Your task to perform on an android device: change the clock display to analog Image 0: 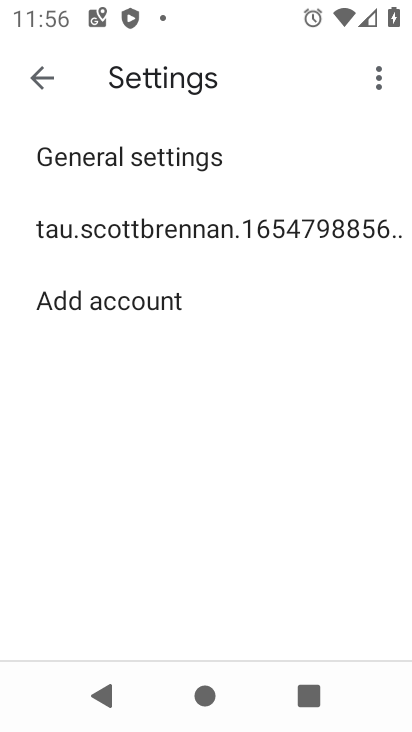
Step 0: press home button
Your task to perform on an android device: change the clock display to analog Image 1: 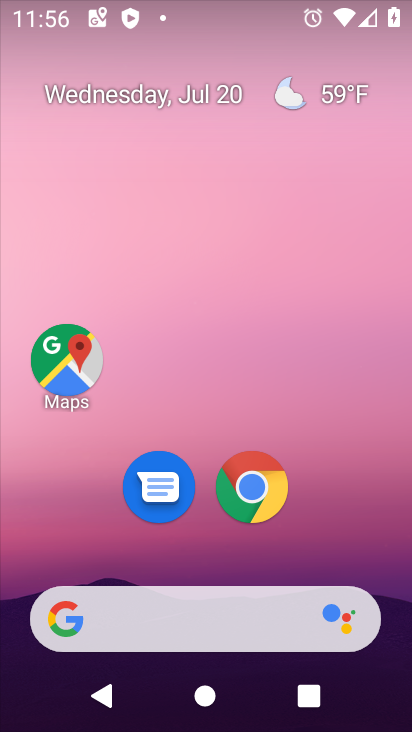
Step 1: drag from (375, 526) to (356, 106)
Your task to perform on an android device: change the clock display to analog Image 2: 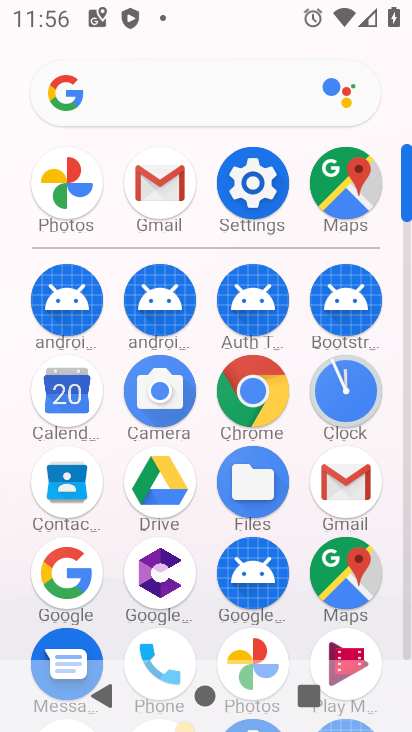
Step 2: click (353, 400)
Your task to perform on an android device: change the clock display to analog Image 3: 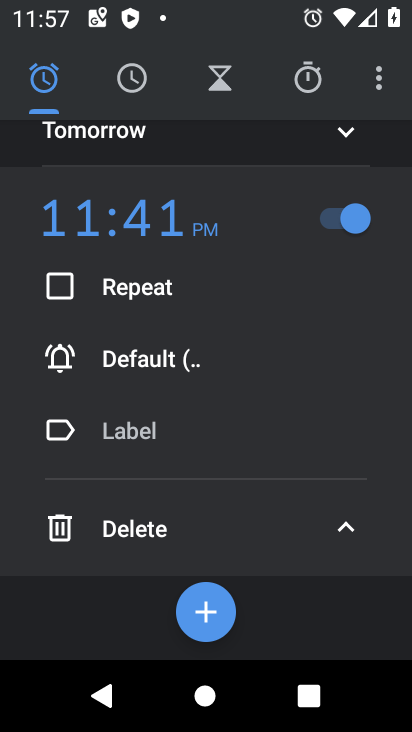
Step 3: click (379, 94)
Your task to perform on an android device: change the clock display to analog Image 4: 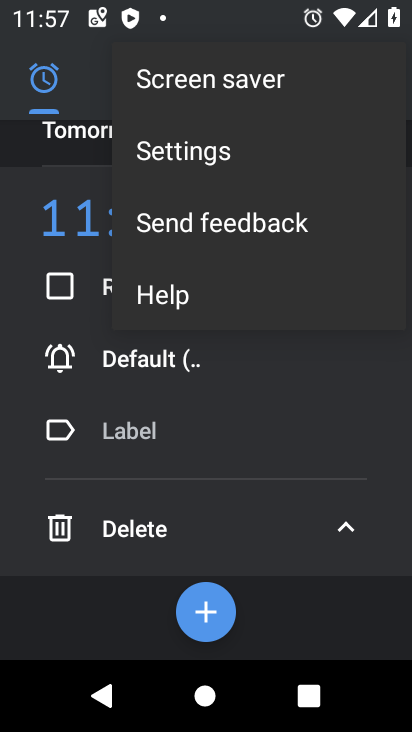
Step 4: click (288, 143)
Your task to perform on an android device: change the clock display to analog Image 5: 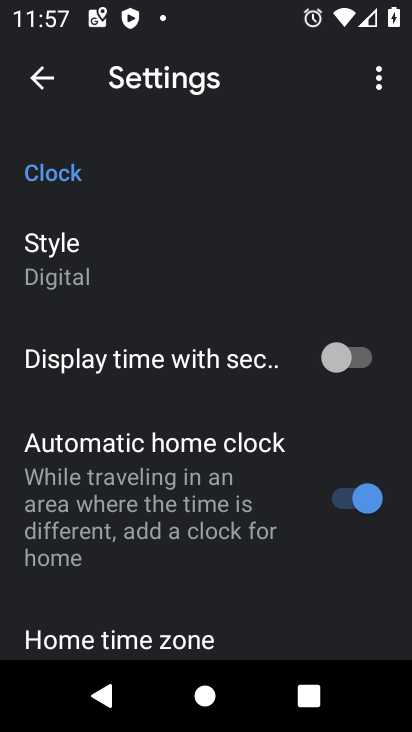
Step 5: drag from (284, 406) to (293, 302)
Your task to perform on an android device: change the clock display to analog Image 6: 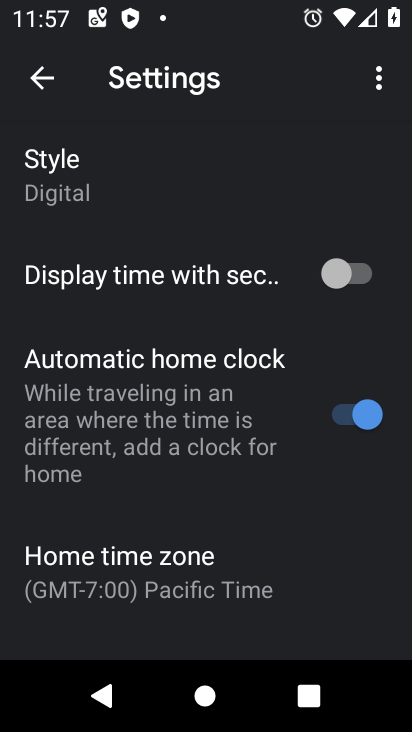
Step 6: drag from (288, 428) to (281, 313)
Your task to perform on an android device: change the clock display to analog Image 7: 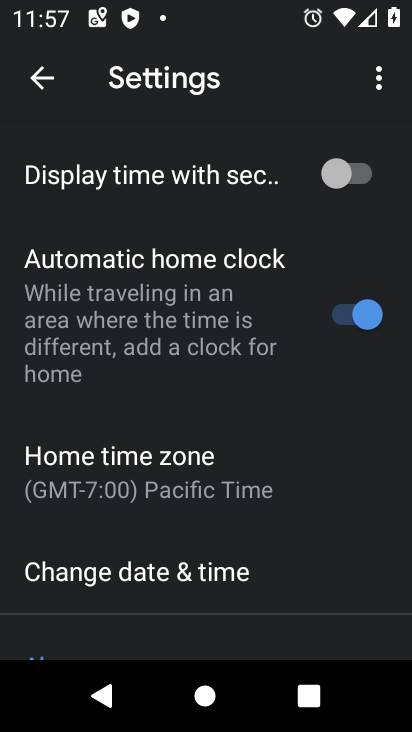
Step 7: drag from (264, 394) to (268, 259)
Your task to perform on an android device: change the clock display to analog Image 8: 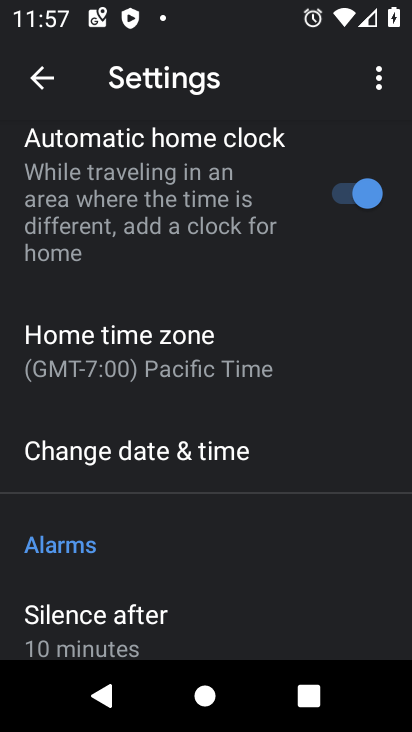
Step 8: drag from (309, 436) to (315, 346)
Your task to perform on an android device: change the clock display to analog Image 9: 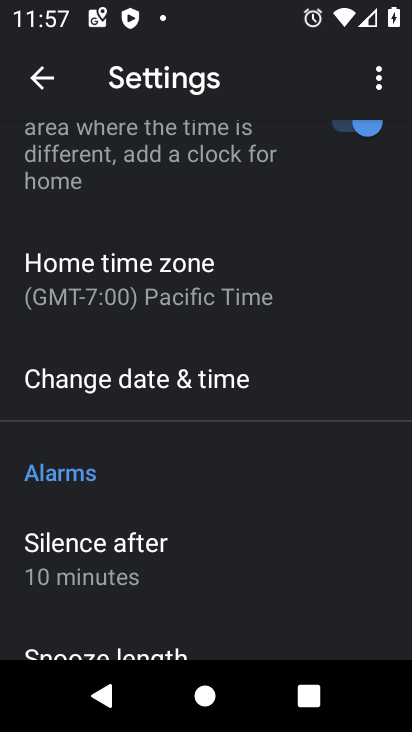
Step 9: drag from (334, 465) to (333, 366)
Your task to perform on an android device: change the clock display to analog Image 10: 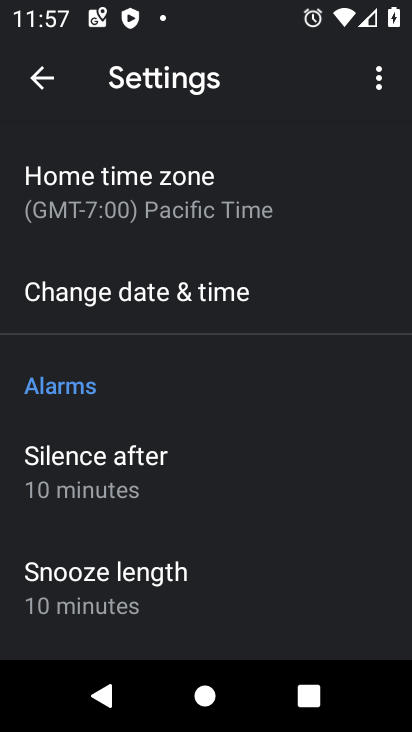
Step 10: drag from (307, 274) to (305, 360)
Your task to perform on an android device: change the clock display to analog Image 11: 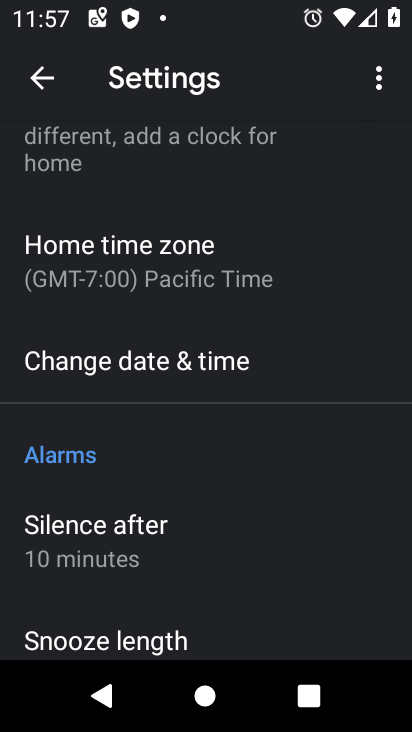
Step 11: drag from (302, 188) to (312, 293)
Your task to perform on an android device: change the clock display to analog Image 12: 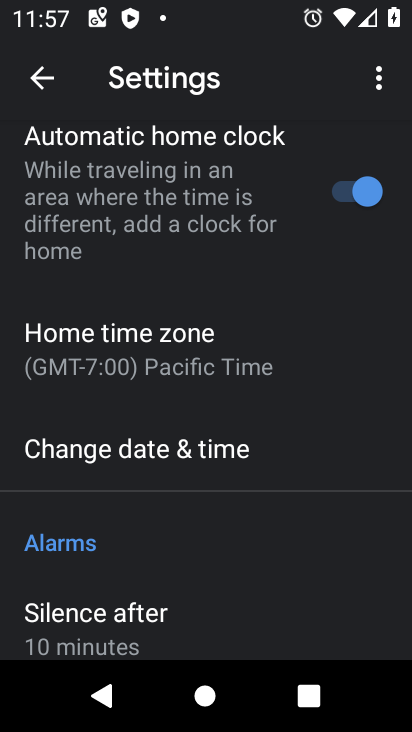
Step 12: drag from (311, 179) to (304, 370)
Your task to perform on an android device: change the clock display to analog Image 13: 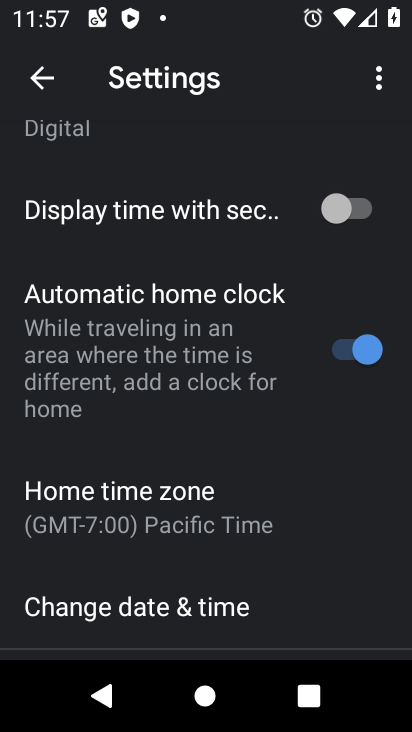
Step 13: drag from (295, 195) to (291, 412)
Your task to perform on an android device: change the clock display to analog Image 14: 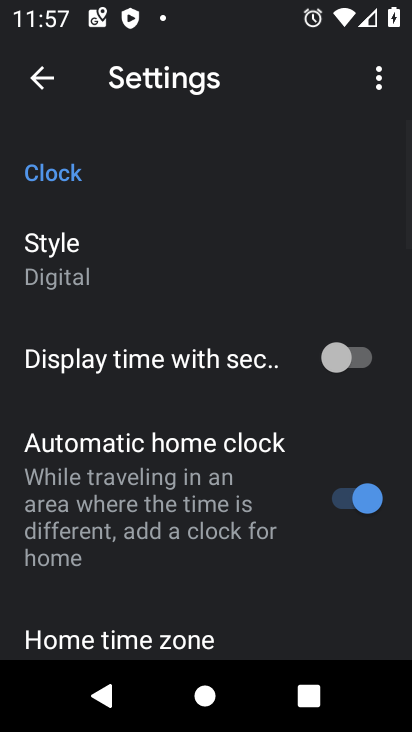
Step 14: click (114, 263)
Your task to perform on an android device: change the clock display to analog Image 15: 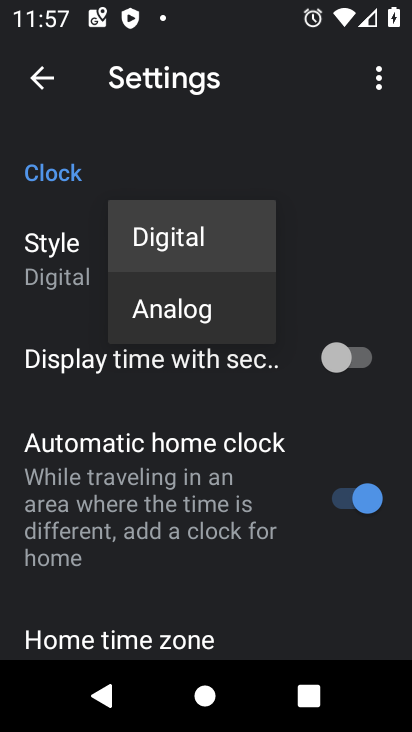
Step 15: click (155, 302)
Your task to perform on an android device: change the clock display to analog Image 16: 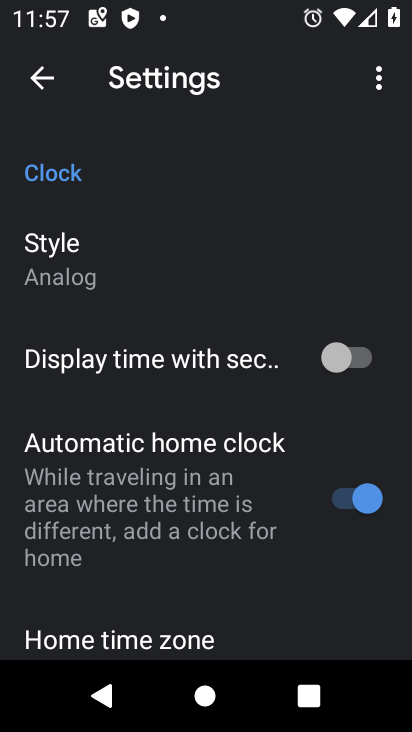
Step 16: task complete